Your task to perform on an android device: open app "Gmail" (install if not already installed) and enter user name: "undecidable@inbox.com" and password: "discouraging" Image 0: 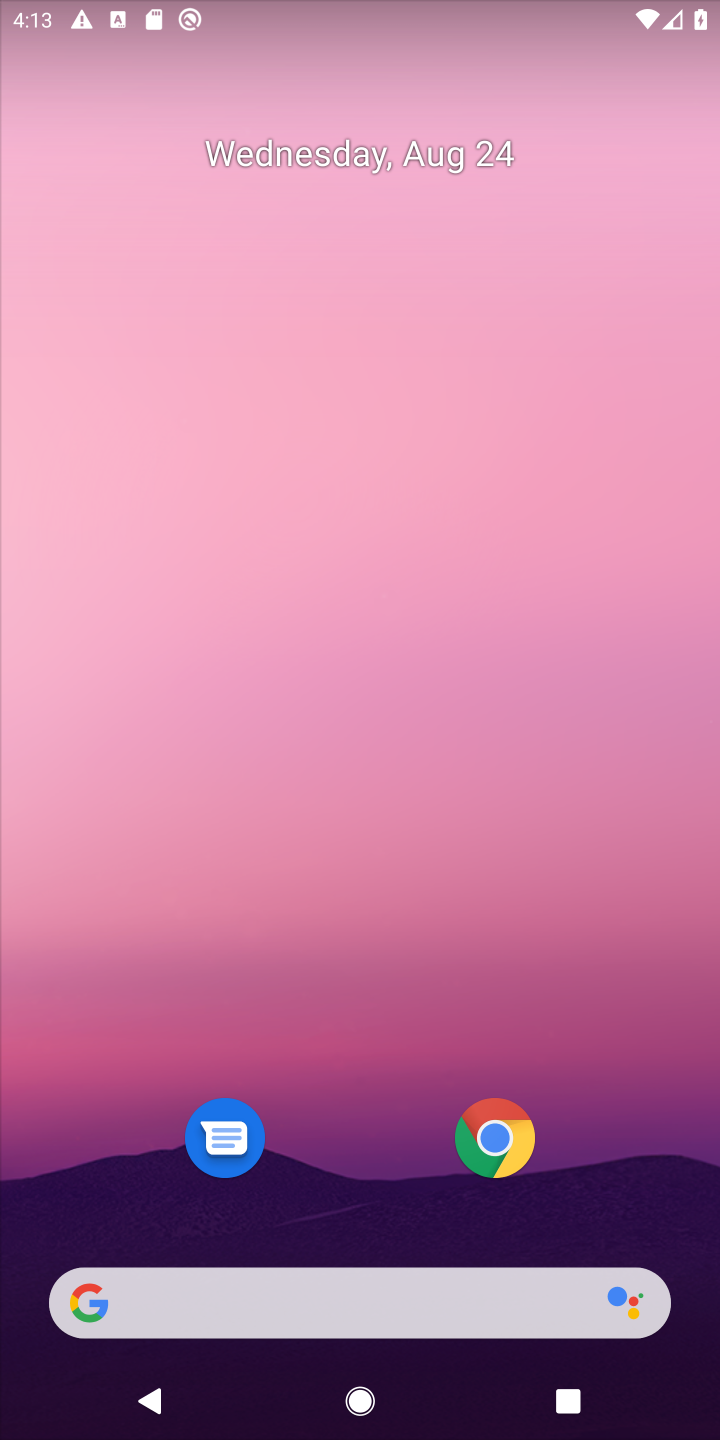
Step 0: drag from (323, 134) to (304, 4)
Your task to perform on an android device: open app "Gmail" (install if not already installed) and enter user name: "undecidable@inbox.com" and password: "discouraging" Image 1: 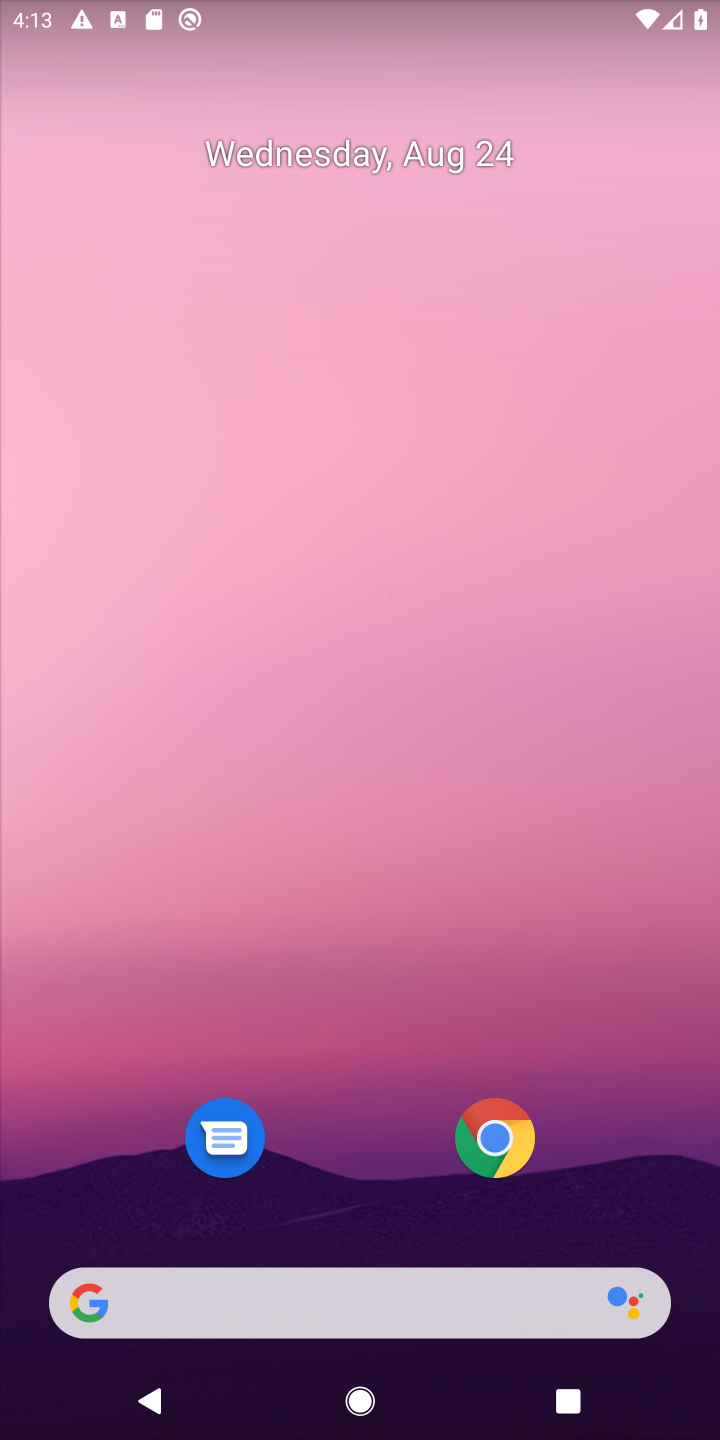
Step 1: drag from (347, 796) to (390, 14)
Your task to perform on an android device: open app "Gmail" (install if not already installed) and enter user name: "undecidable@inbox.com" and password: "discouraging" Image 2: 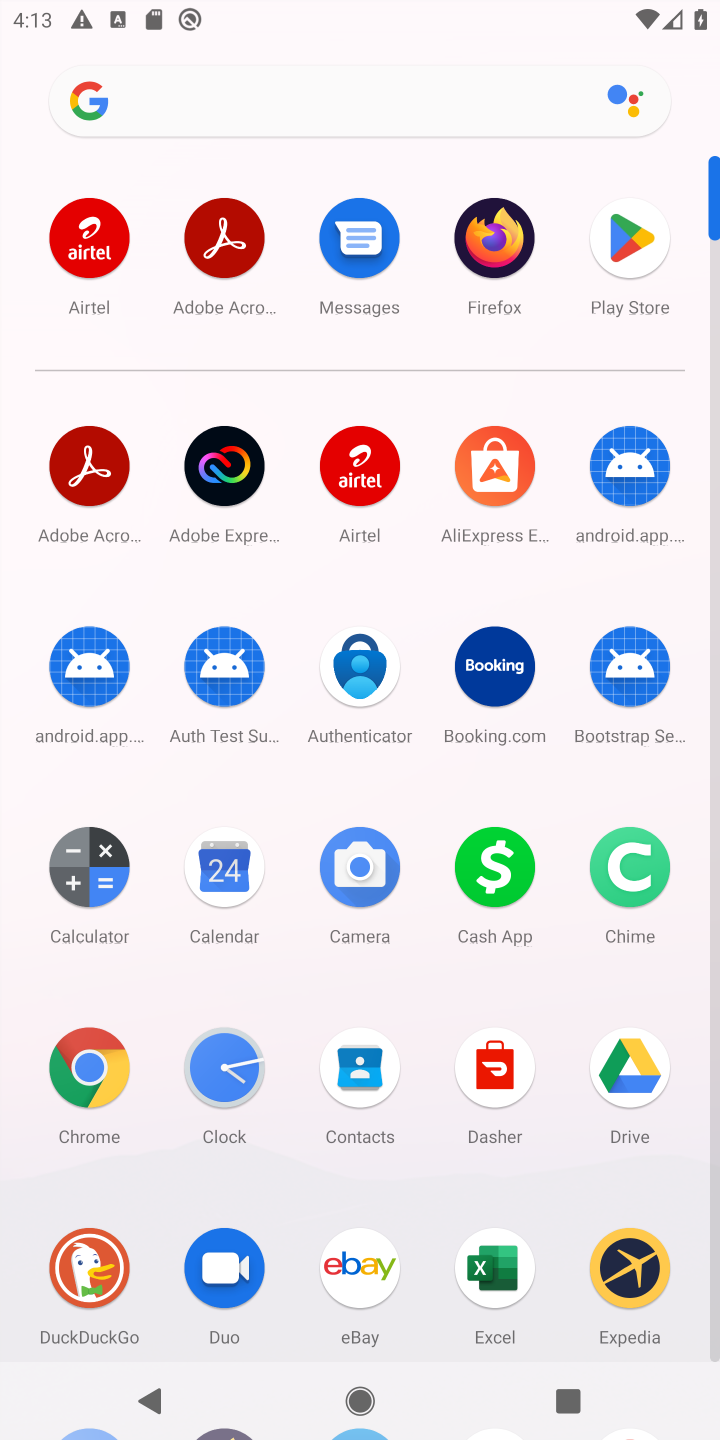
Step 2: click (622, 231)
Your task to perform on an android device: open app "Gmail" (install if not already installed) and enter user name: "undecidable@inbox.com" and password: "discouraging" Image 3: 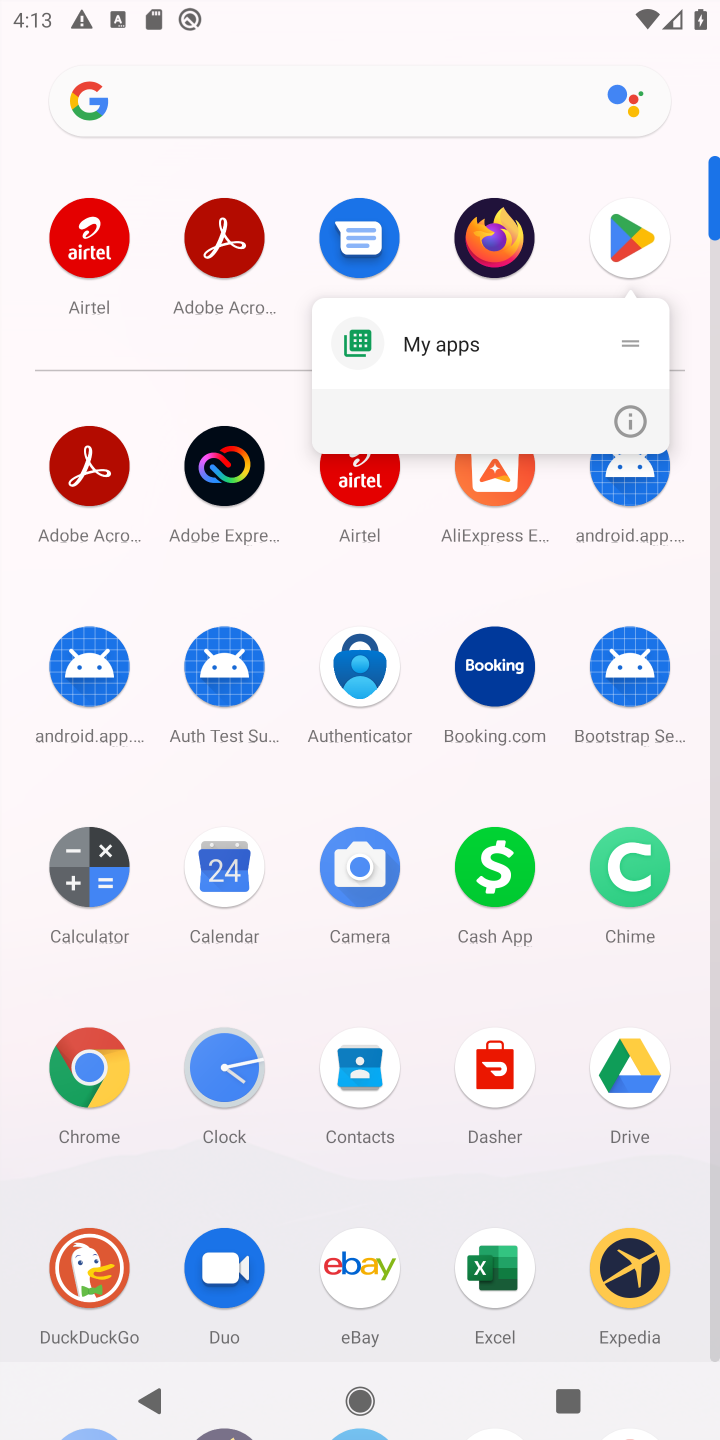
Step 3: click (629, 239)
Your task to perform on an android device: open app "Gmail" (install if not already installed) and enter user name: "undecidable@inbox.com" and password: "discouraging" Image 4: 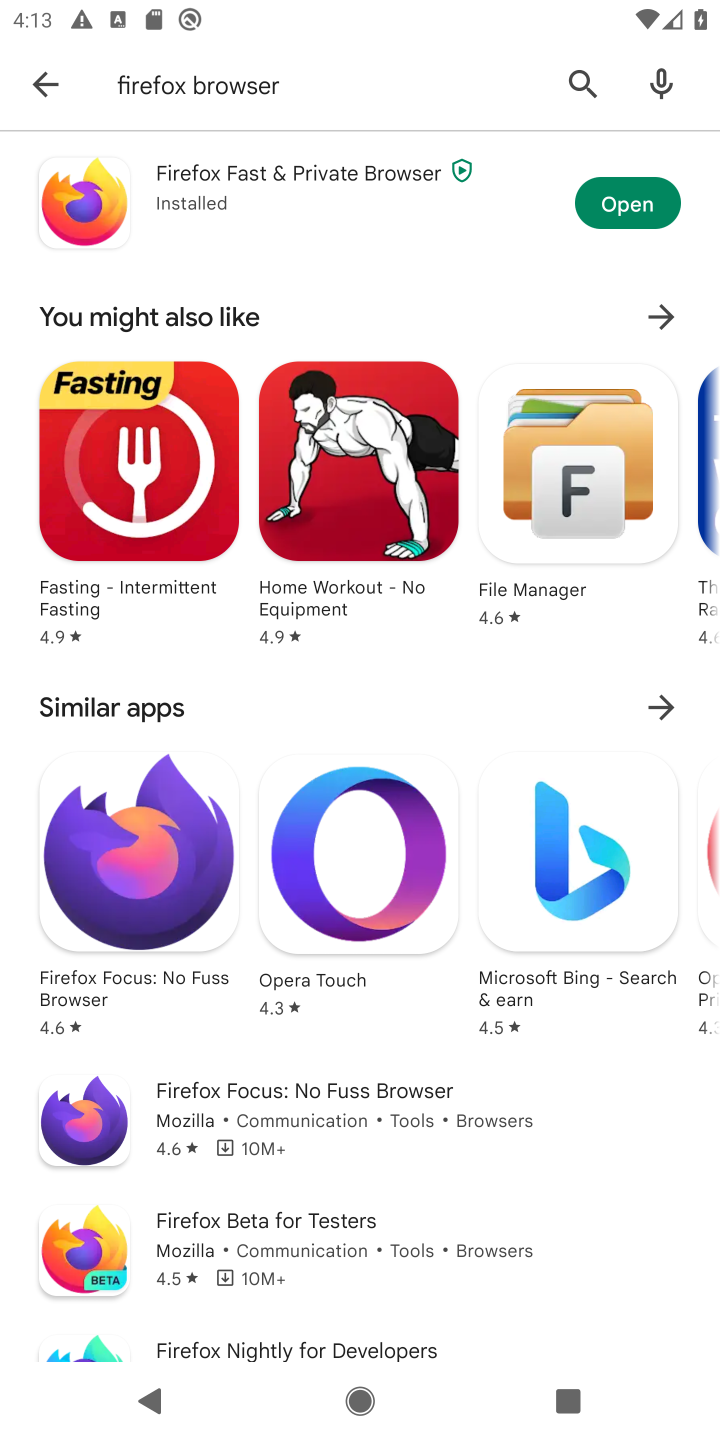
Step 4: click (565, 81)
Your task to perform on an android device: open app "Gmail" (install if not already installed) and enter user name: "undecidable@inbox.com" and password: "discouraging" Image 5: 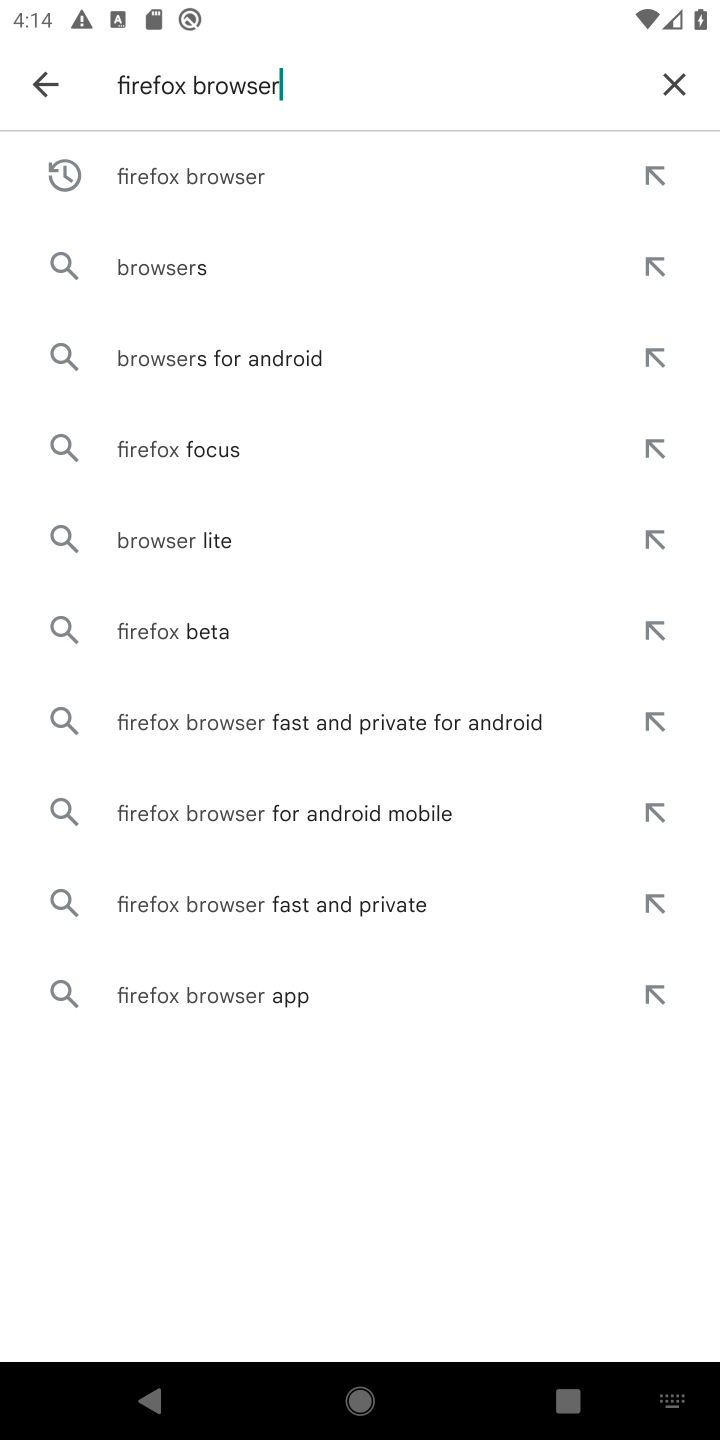
Step 5: click (665, 83)
Your task to perform on an android device: open app "Gmail" (install if not already installed) and enter user name: "undecidable@inbox.com" and password: "discouraging" Image 6: 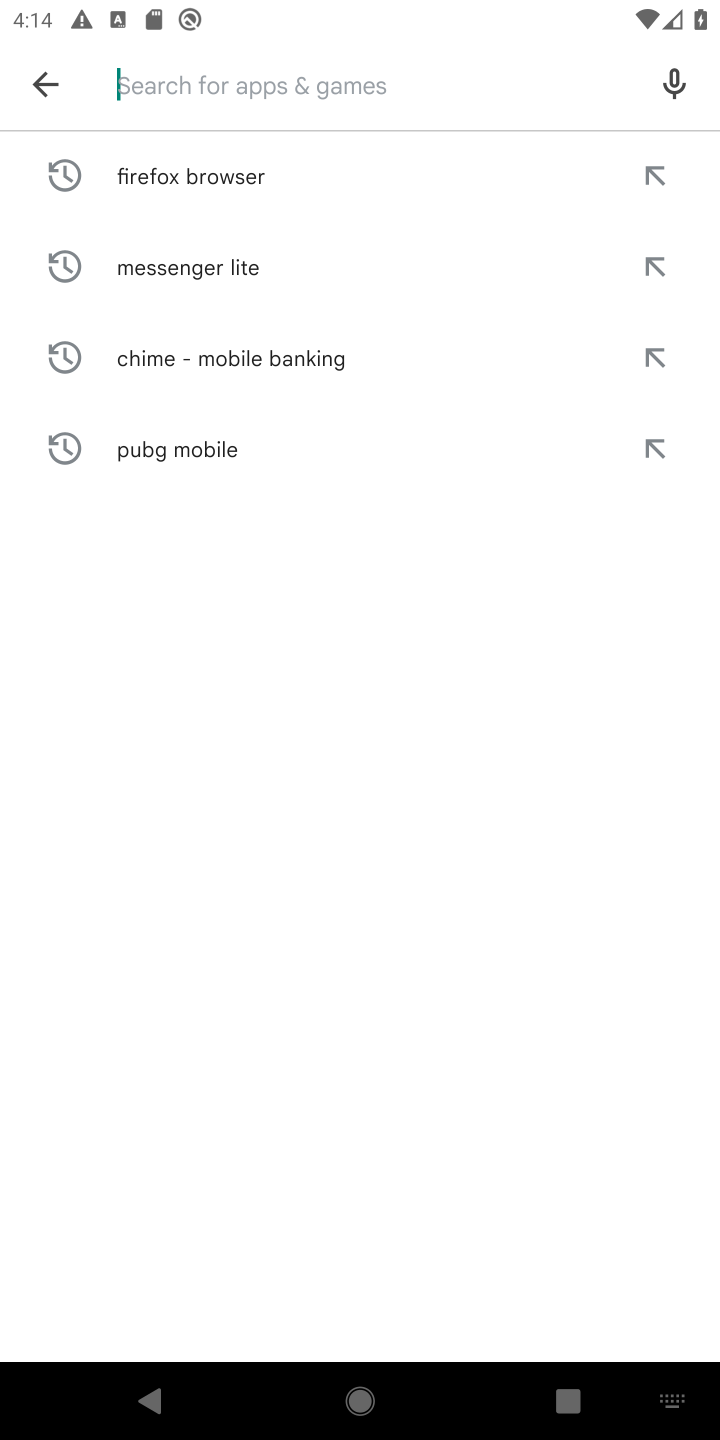
Step 6: type "Gmail"
Your task to perform on an android device: open app "Gmail" (install if not already installed) and enter user name: "undecidable@inbox.com" and password: "discouraging" Image 7: 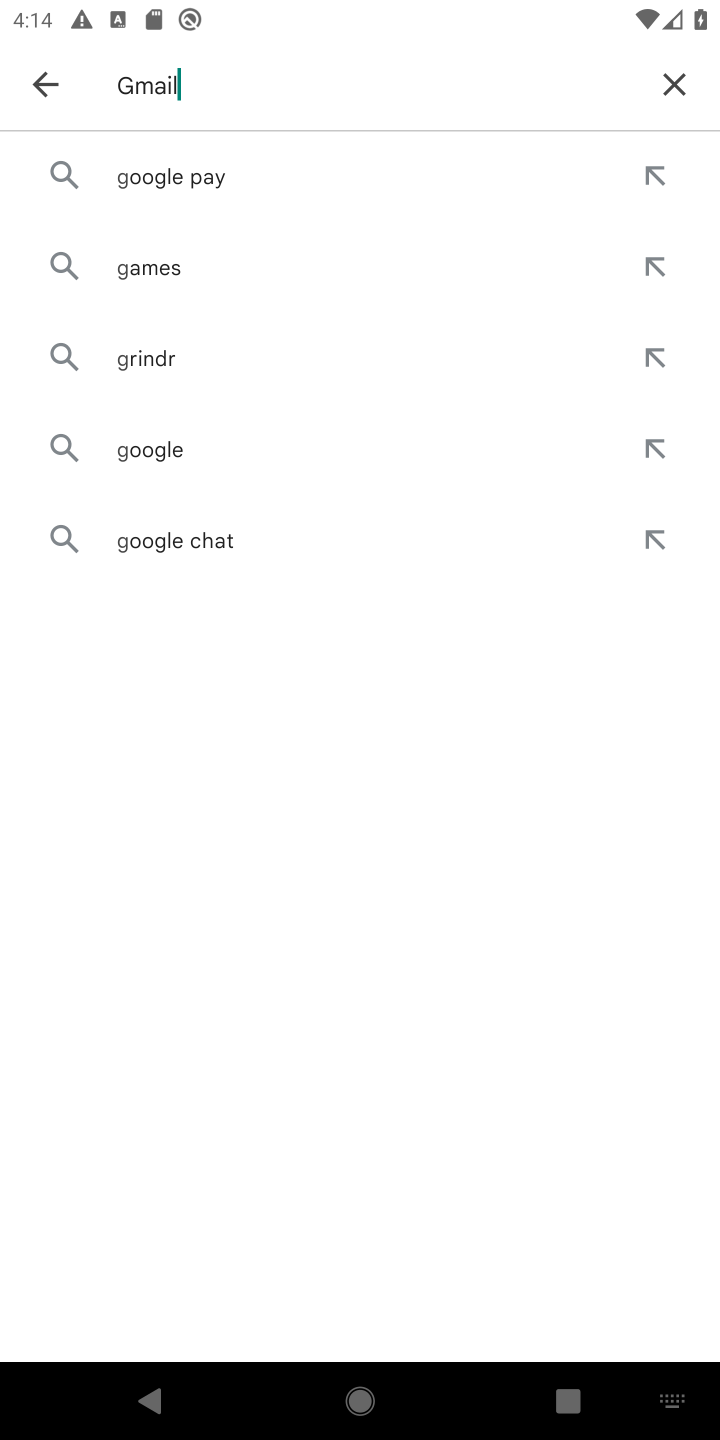
Step 7: type ""
Your task to perform on an android device: open app "Gmail" (install if not already installed) and enter user name: "undecidable@inbox.com" and password: "discouraging" Image 8: 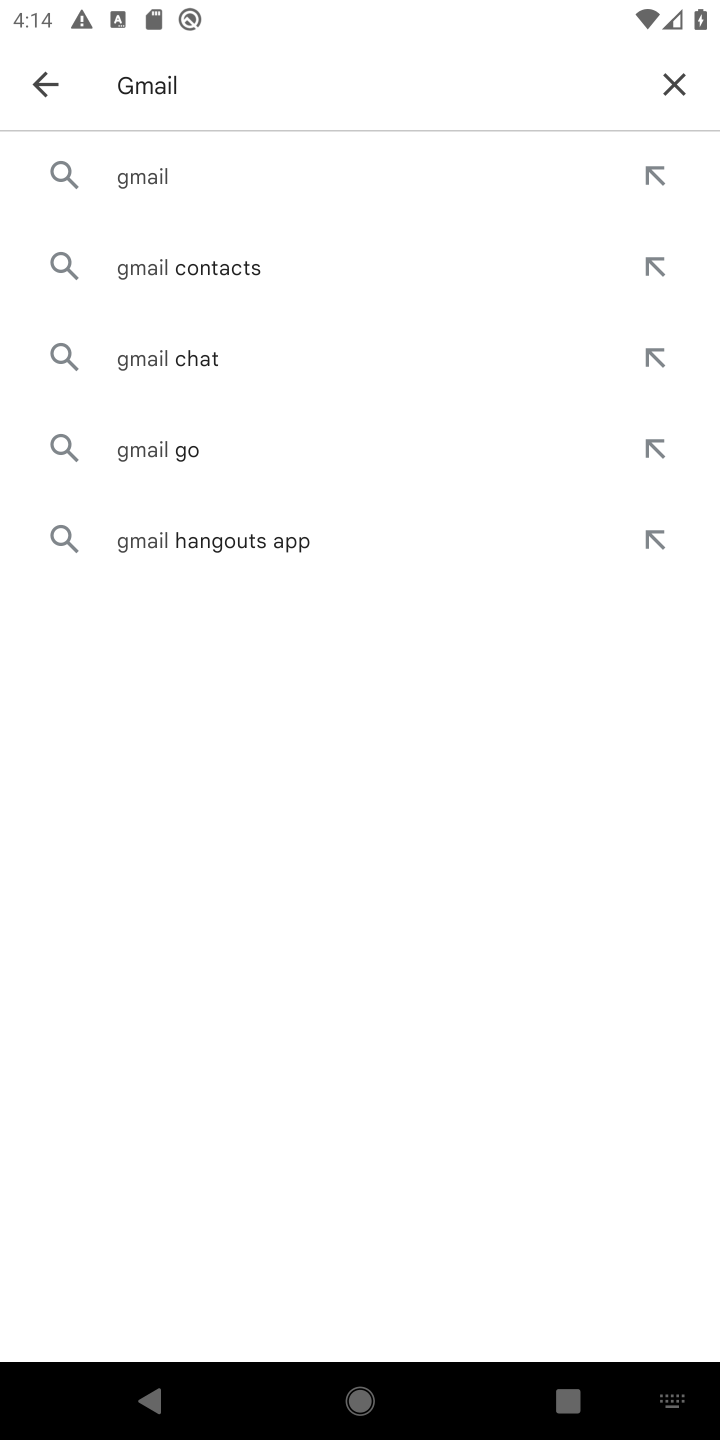
Step 8: click (131, 164)
Your task to perform on an android device: open app "Gmail" (install if not already installed) and enter user name: "undecidable@inbox.com" and password: "discouraging" Image 9: 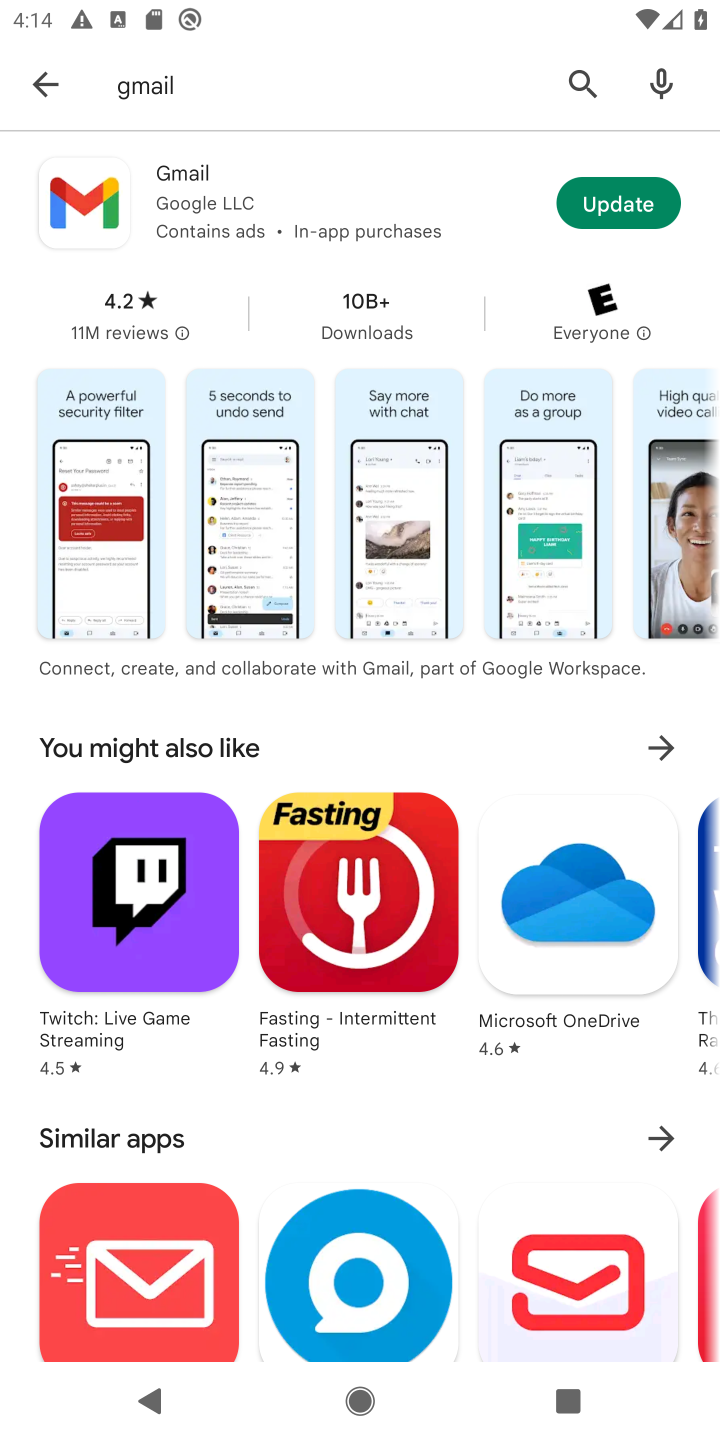
Step 9: click (123, 190)
Your task to perform on an android device: open app "Gmail" (install if not already installed) and enter user name: "undecidable@inbox.com" and password: "discouraging" Image 10: 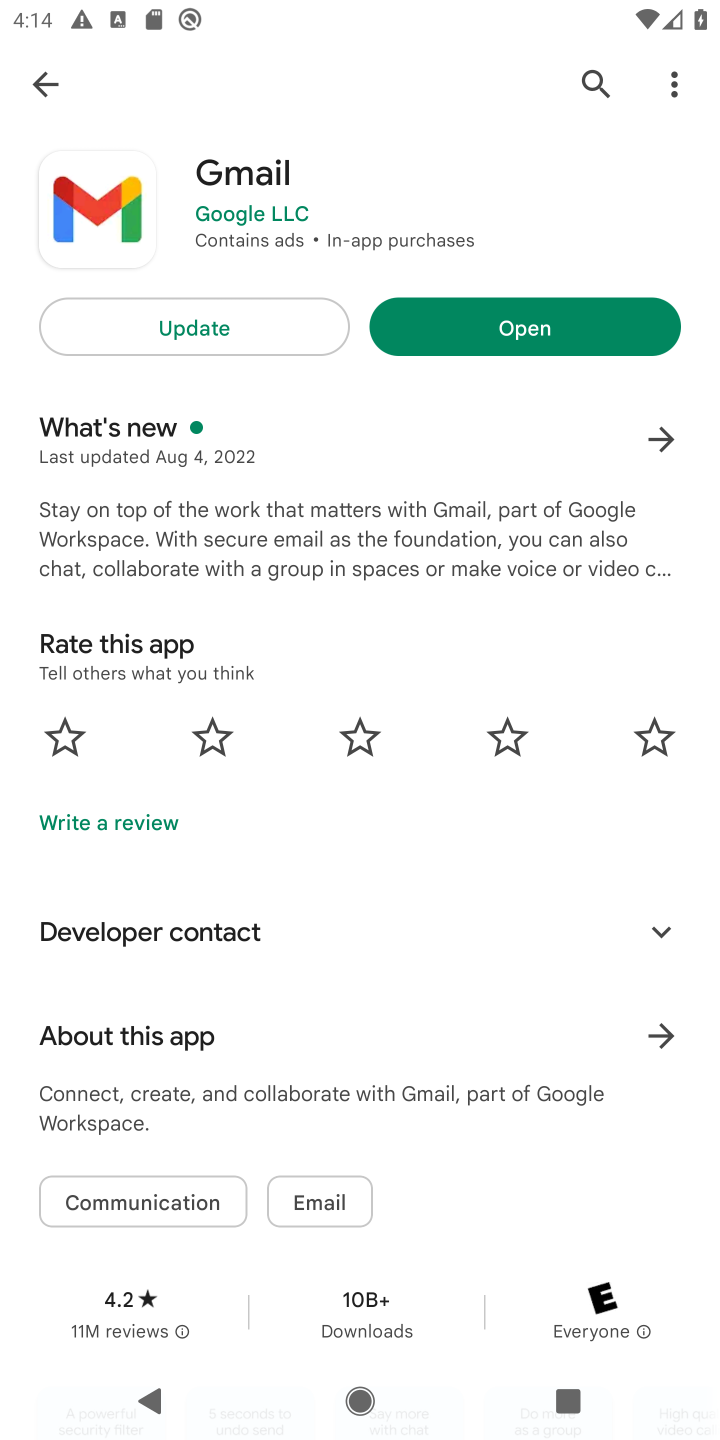
Step 10: click (505, 334)
Your task to perform on an android device: open app "Gmail" (install if not already installed) and enter user name: "undecidable@inbox.com" and password: "discouraging" Image 11: 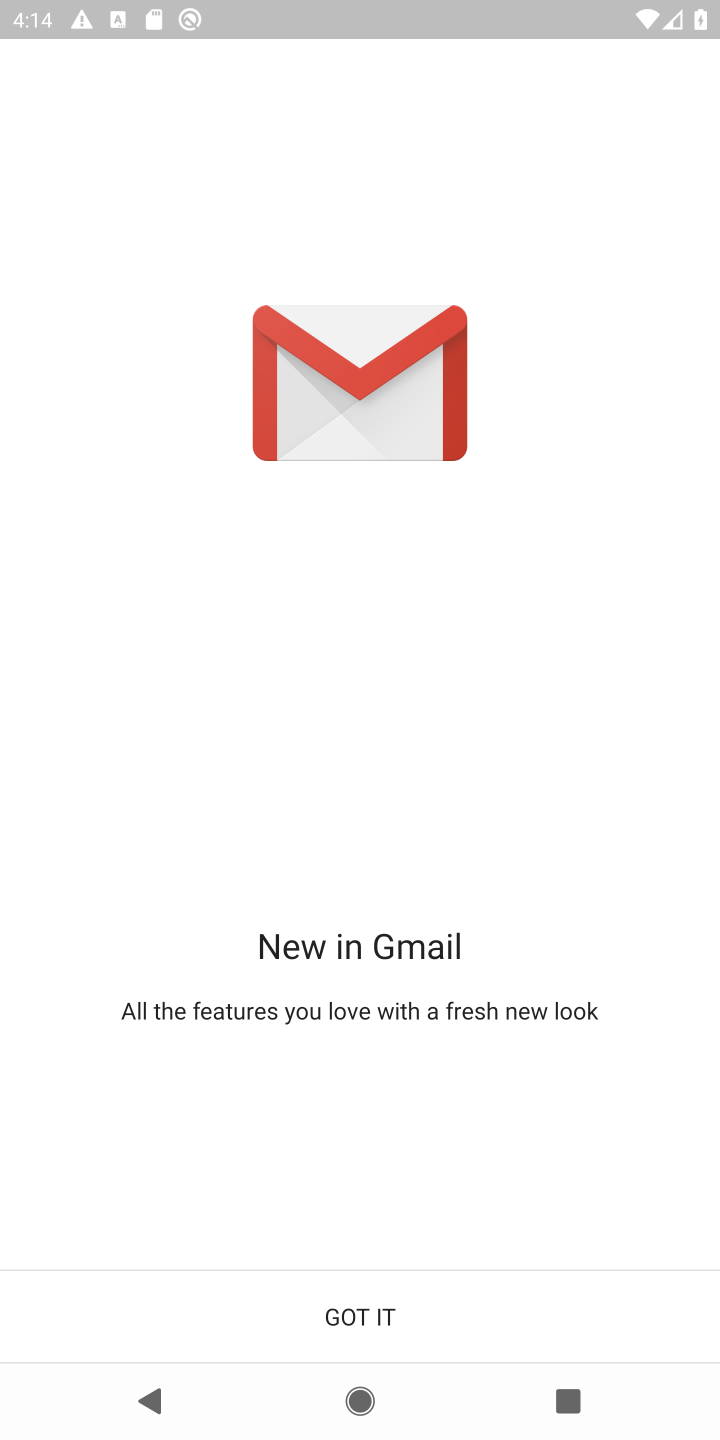
Step 11: click (384, 1315)
Your task to perform on an android device: open app "Gmail" (install if not already installed) and enter user name: "undecidable@inbox.com" and password: "discouraging" Image 12: 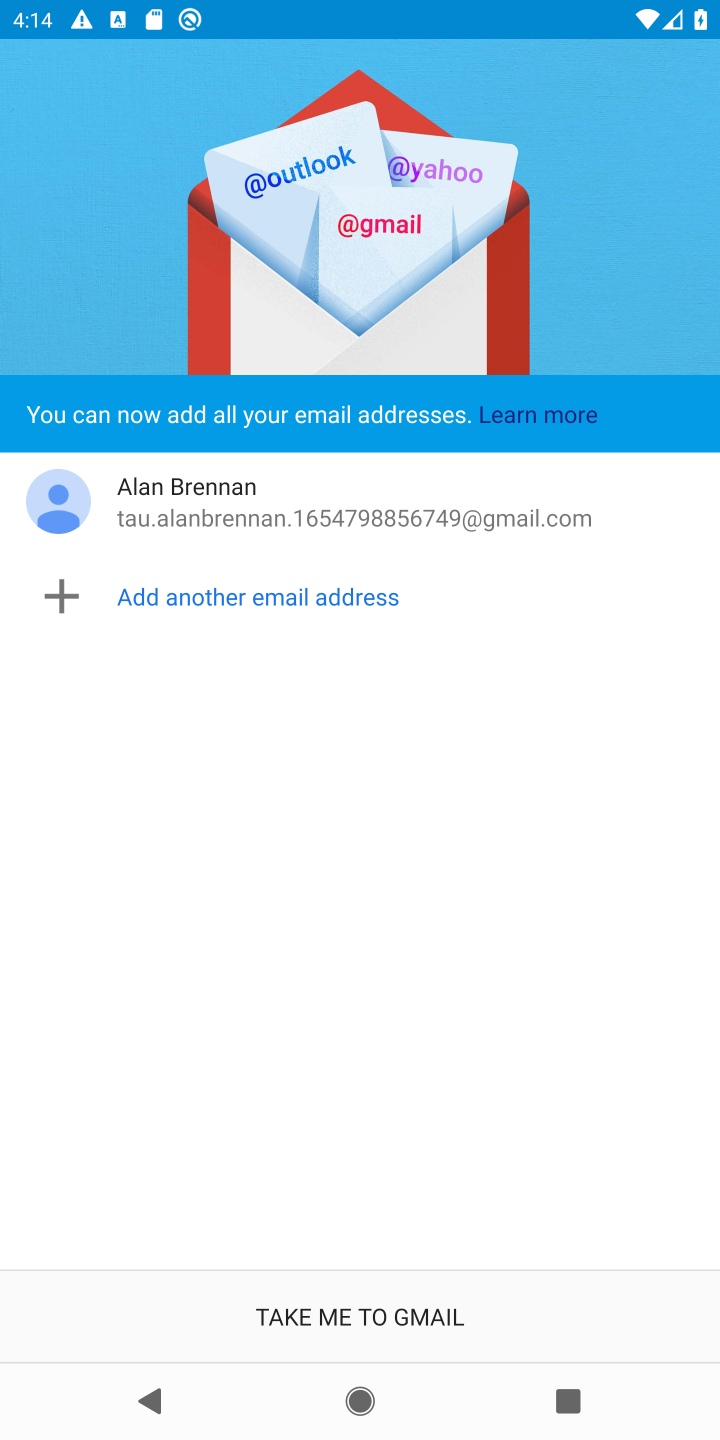
Step 12: click (202, 602)
Your task to perform on an android device: open app "Gmail" (install if not already installed) and enter user name: "undecidable@inbox.com" and password: "discouraging" Image 13: 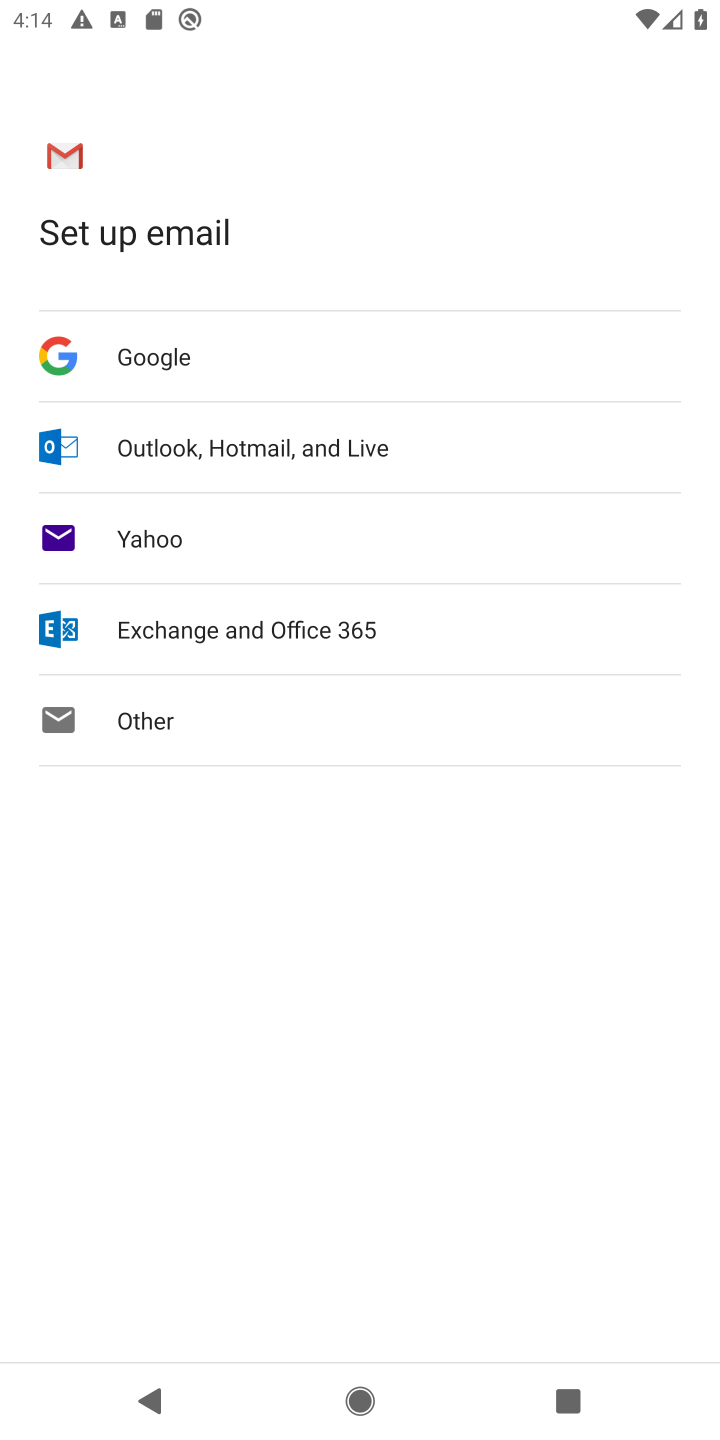
Step 13: click (209, 365)
Your task to perform on an android device: open app "Gmail" (install if not already installed) and enter user name: "undecidable@inbox.com" and password: "discouraging" Image 14: 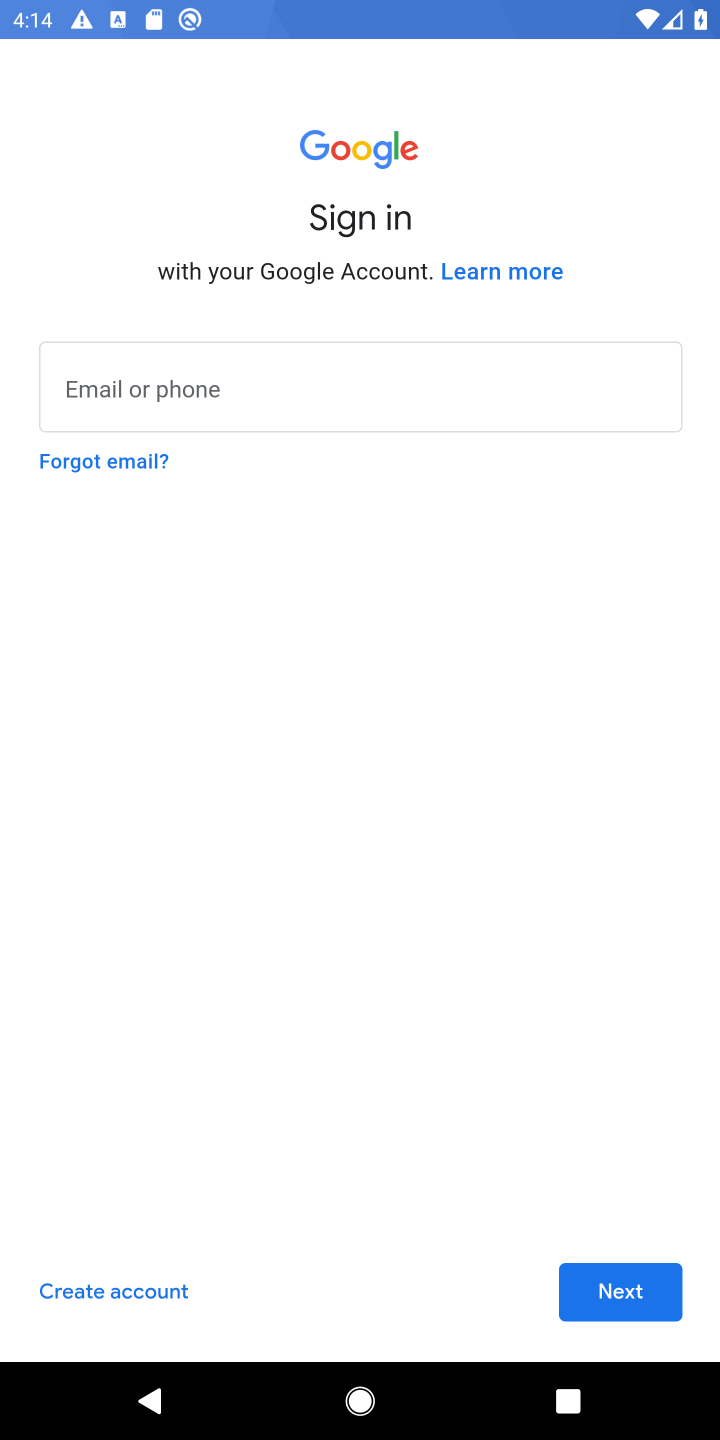
Step 14: click (328, 388)
Your task to perform on an android device: open app "Gmail" (install if not already installed) and enter user name: "undecidable@inbox.com" and password: "discouraging" Image 15: 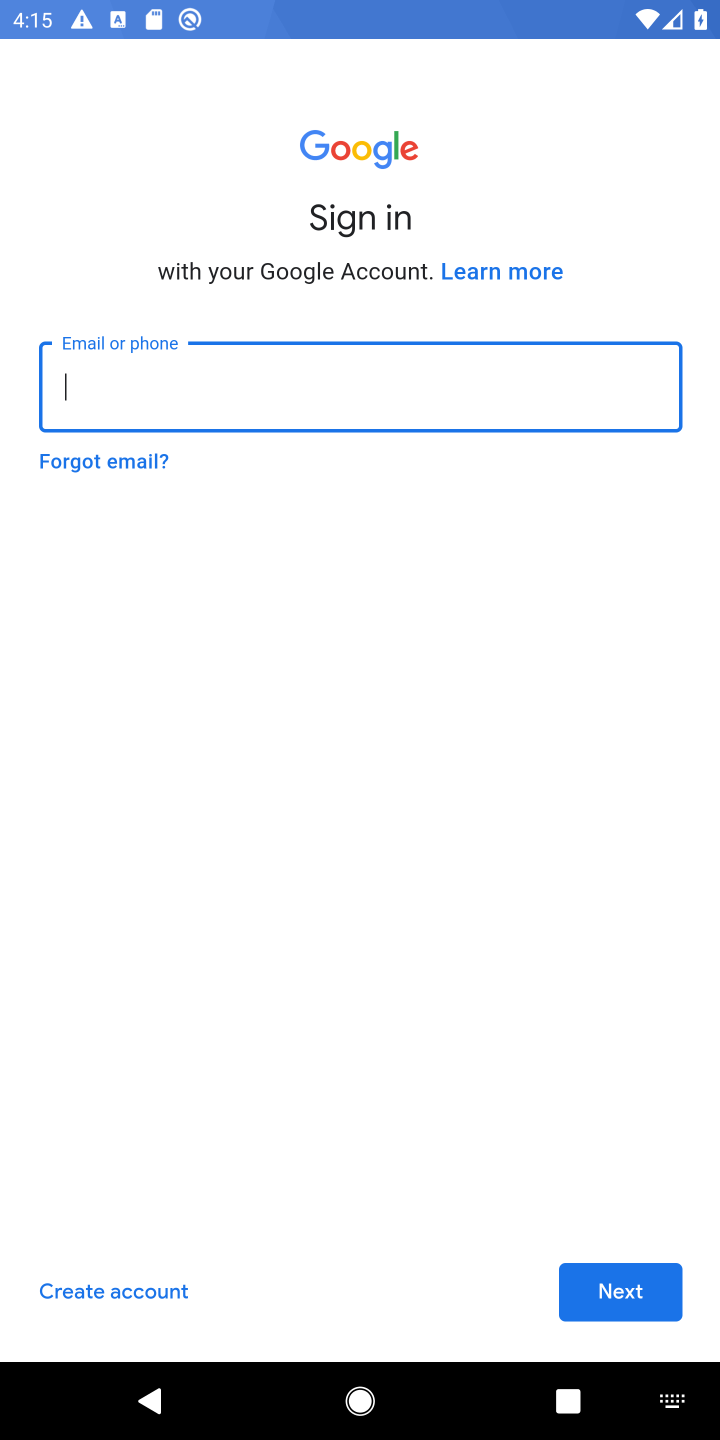
Step 15: type "undecidable@inbox.com"
Your task to perform on an android device: open app "Gmail" (install if not already installed) and enter user name: "undecidable@inbox.com" and password: "discouraging" Image 16: 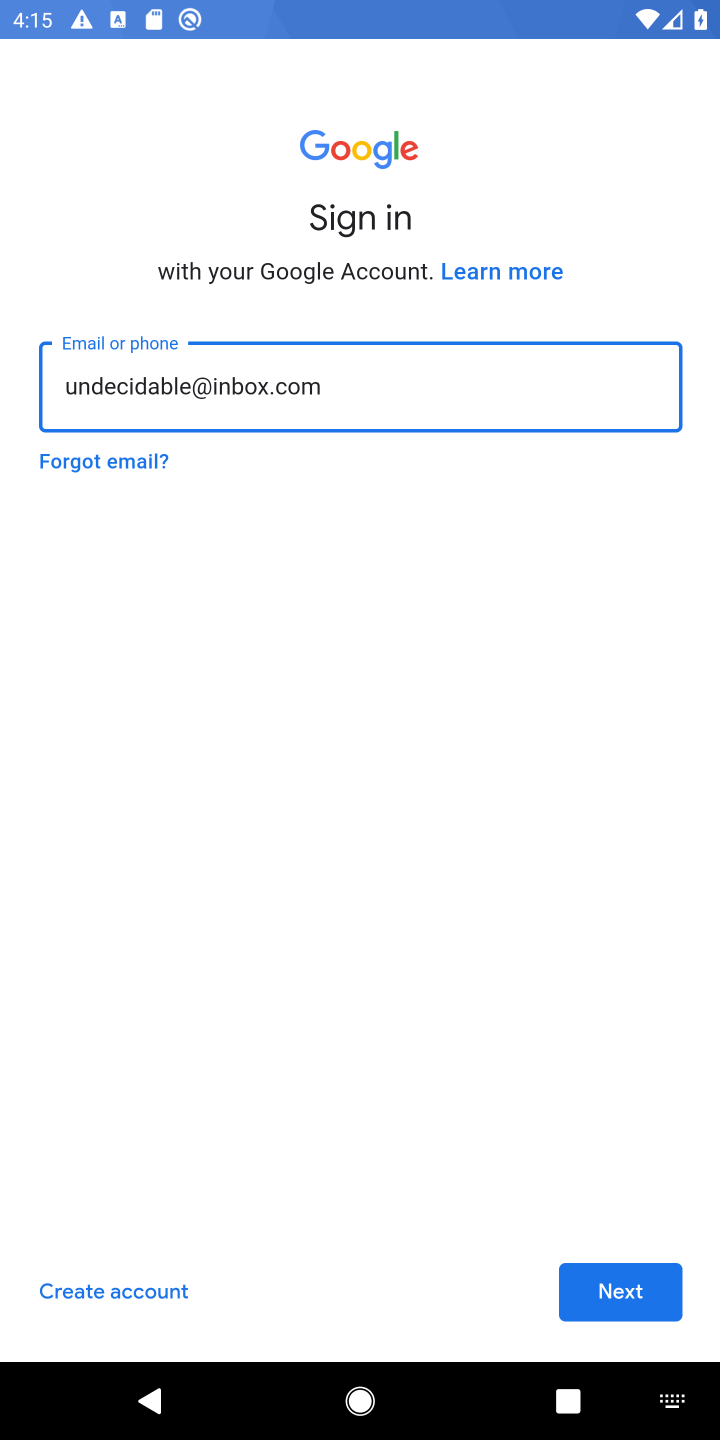
Step 16: click (608, 1298)
Your task to perform on an android device: open app "Gmail" (install if not already installed) and enter user name: "undecidable@inbox.com" and password: "discouraging" Image 17: 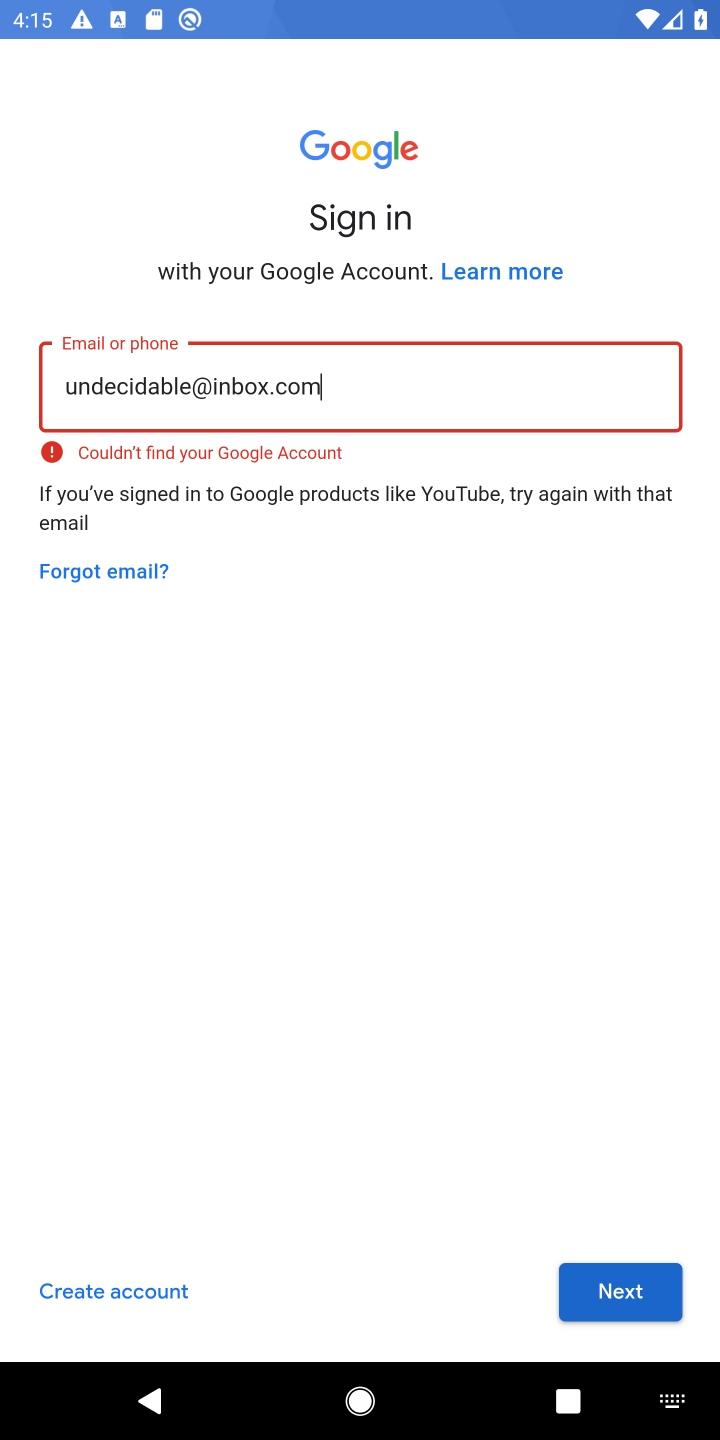
Step 17: task complete